Your task to perform on an android device: open sync settings in chrome Image 0: 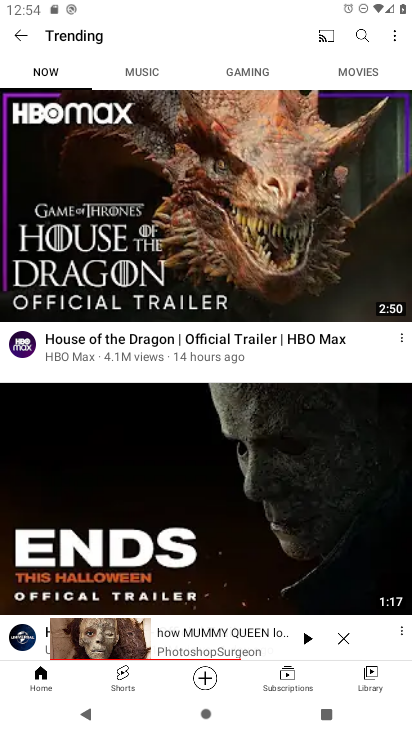
Step 0: press home button
Your task to perform on an android device: open sync settings in chrome Image 1: 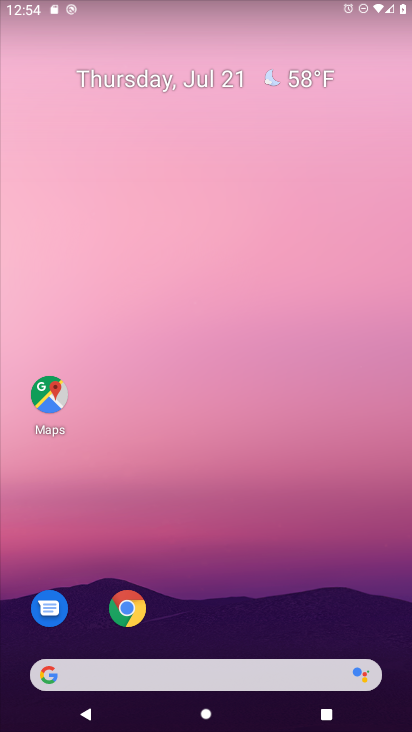
Step 1: drag from (203, 621) to (249, 58)
Your task to perform on an android device: open sync settings in chrome Image 2: 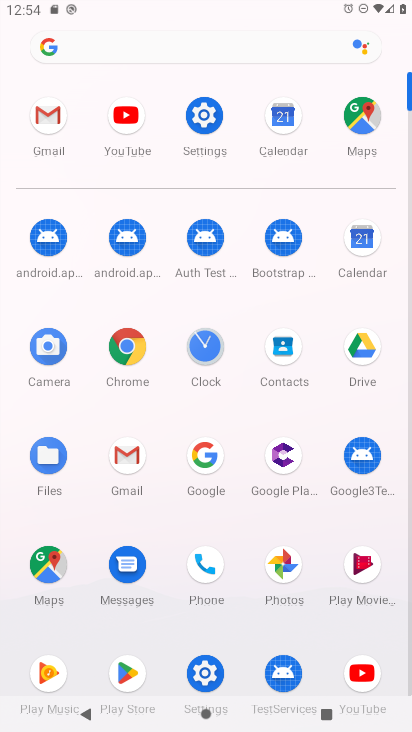
Step 2: click (132, 349)
Your task to perform on an android device: open sync settings in chrome Image 3: 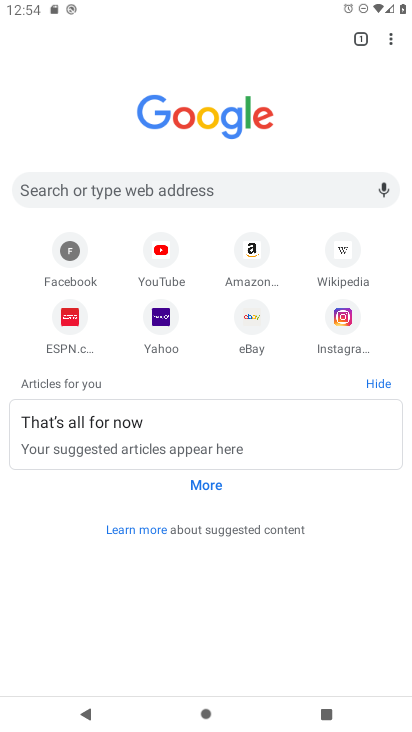
Step 3: drag from (392, 46) to (273, 321)
Your task to perform on an android device: open sync settings in chrome Image 4: 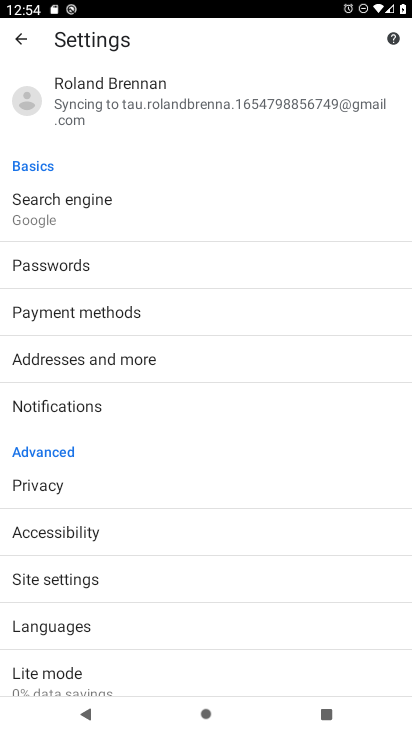
Step 4: click (112, 100)
Your task to perform on an android device: open sync settings in chrome Image 5: 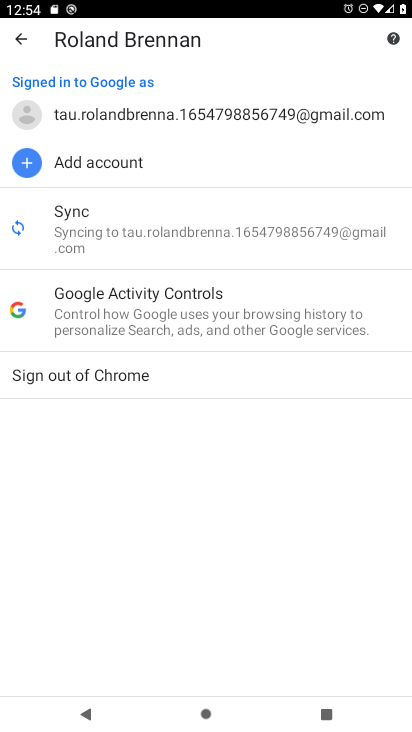
Step 5: click (67, 240)
Your task to perform on an android device: open sync settings in chrome Image 6: 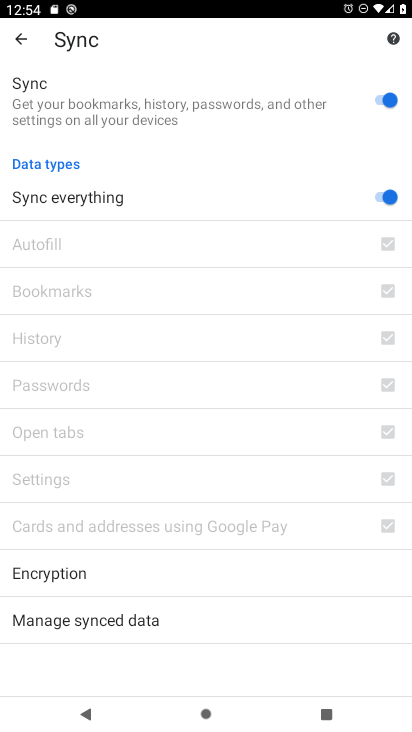
Step 6: task complete